Your task to perform on an android device: turn off location history Image 0: 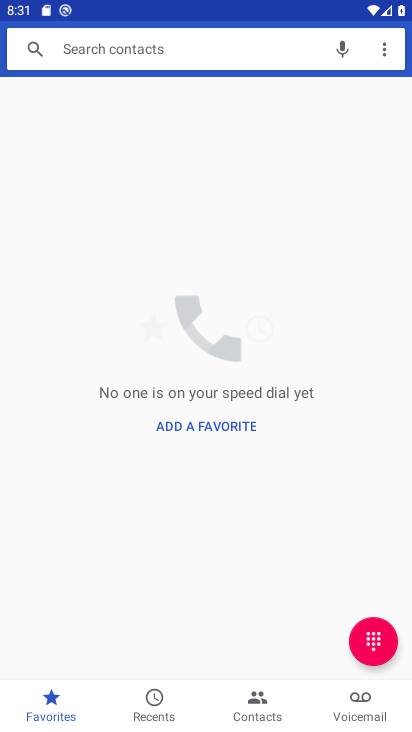
Step 0: press home button
Your task to perform on an android device: turn off location history Image 1: 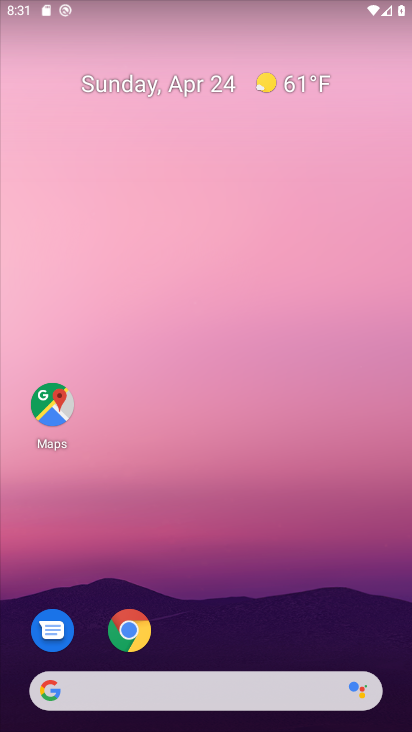
Step 1: drag from (372, 623) to (352, 67)
Your task to perform on an android device: turn off location history Image 2: 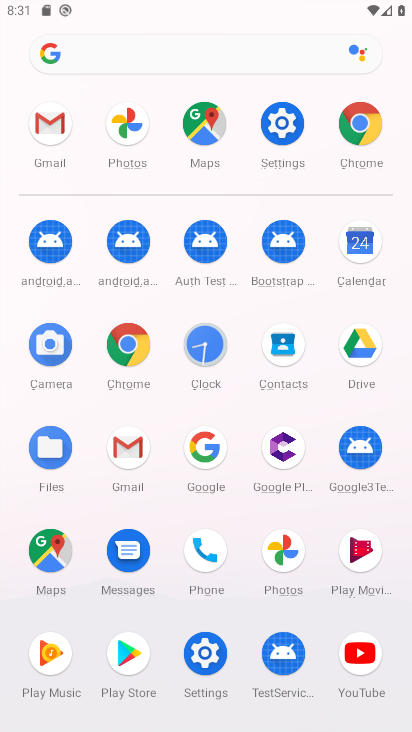
Step 2: click (275, 128)
Your task to perform on an android device: turn off location history Image 3: 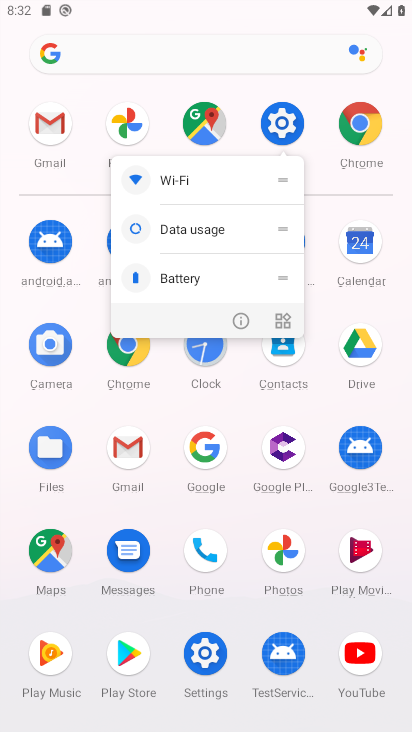
Step 3: click (267, 96)
Your task to perform on an android device: turn off location history Image 4: 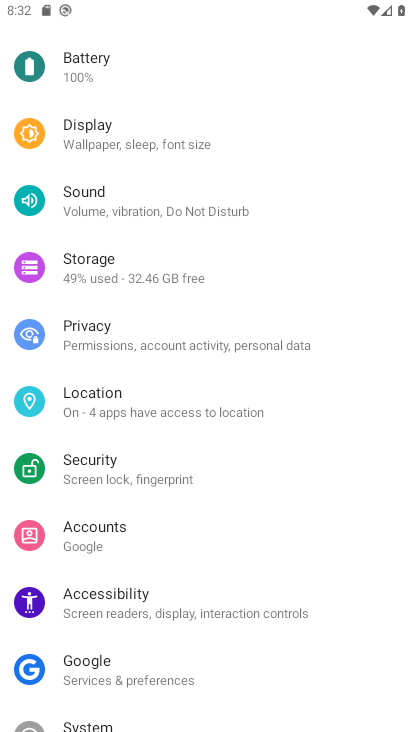
Step 4: drag from (360, 576) to (362, 239)
Your task to perform on an android device: turn off location history Image 5: 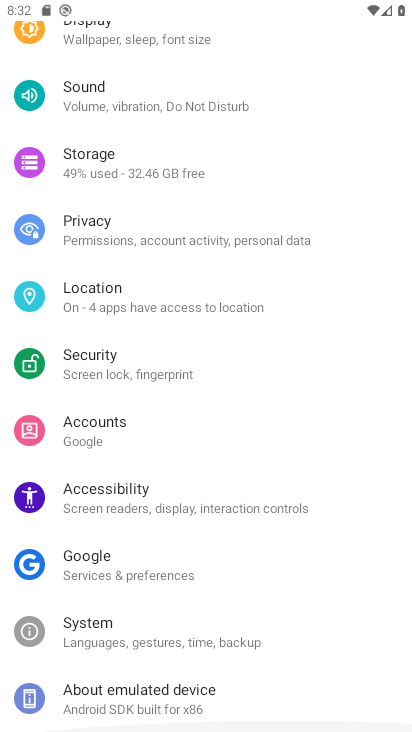
Step 5: drag from (358, 221) to (333, 453)
Your task to perform on an android device: turn off location history Image 6: 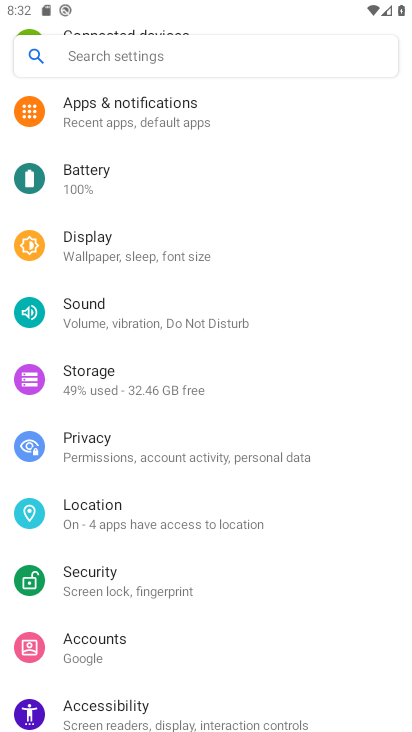
Step 6: drag from (354, 236) to (323, 469)
Your task to perform on an android device: turn off location history Image 7: 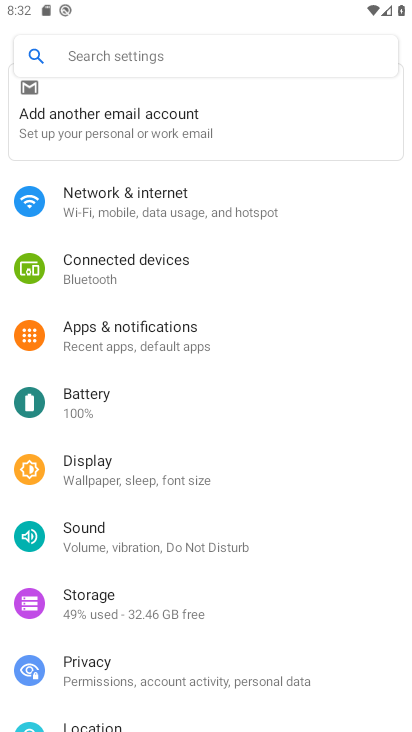
Step 7: drag from (327, 212) to (352, 429)
Your task to perform on an android device: turn off location history Image 8: 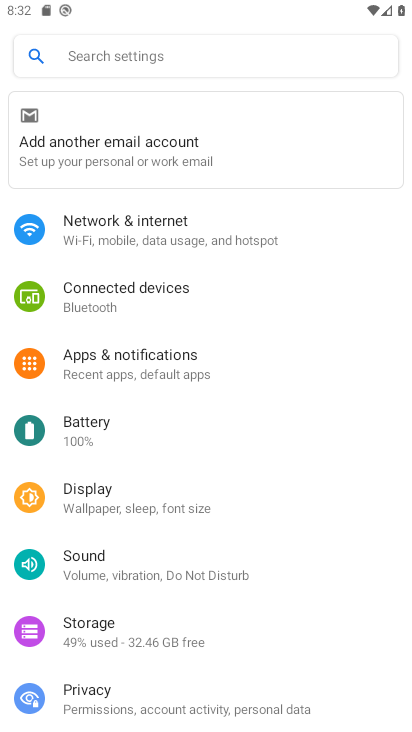
Step 8: drag from (350, 563) to (370, 341)
Your task to perform on an android device: turn off location history Image 9: 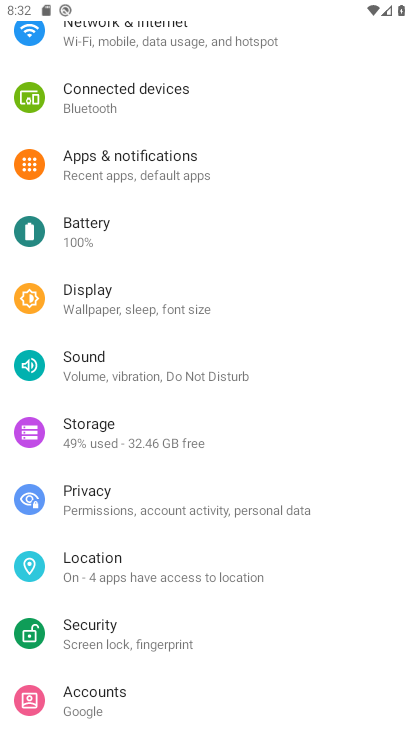
Step 9: drag from (355, 624) to (353, 152)
Your task to perform on an android device: turn off location history Image 10: 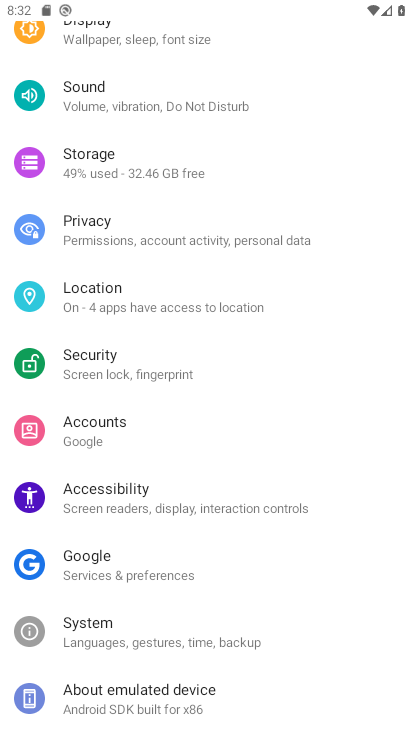
Step 10: click (235, 294)
Your task to perform on an android device: turn off location history Image 11: 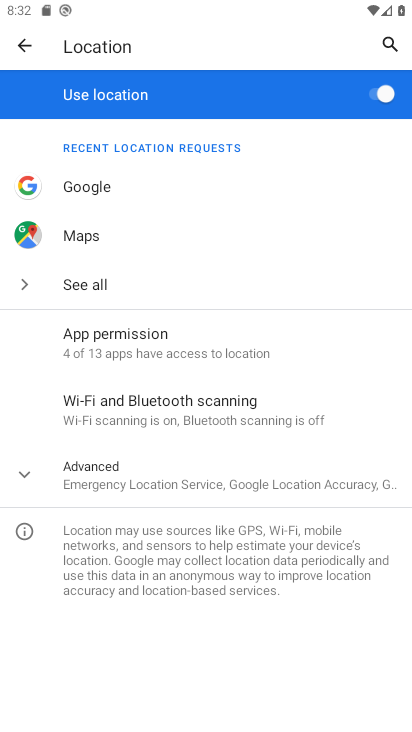
Step 11: click (327, 473)
Your task to perform on an android device: turn off location history Image 12: 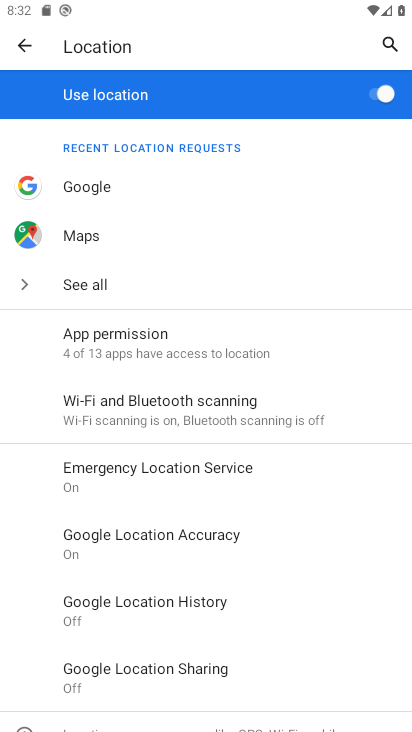
Step 12: drag from (352, 616) to (358, 365)
Your task to perform on an android device: turn off location history Image 13: 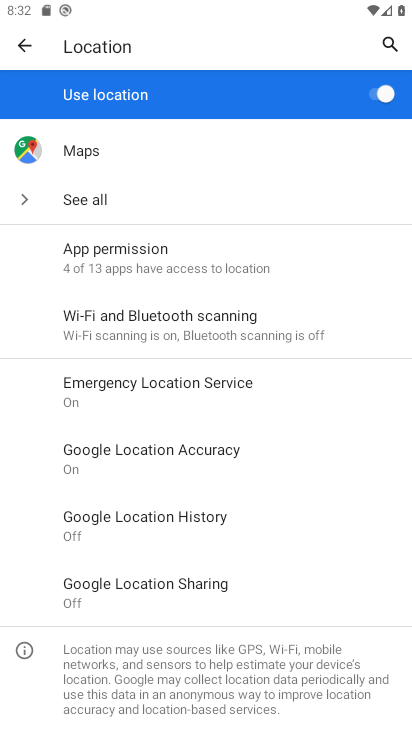
Step 13: click (195, 527)
Your task to perform on an android device: turn off location history Image 14: 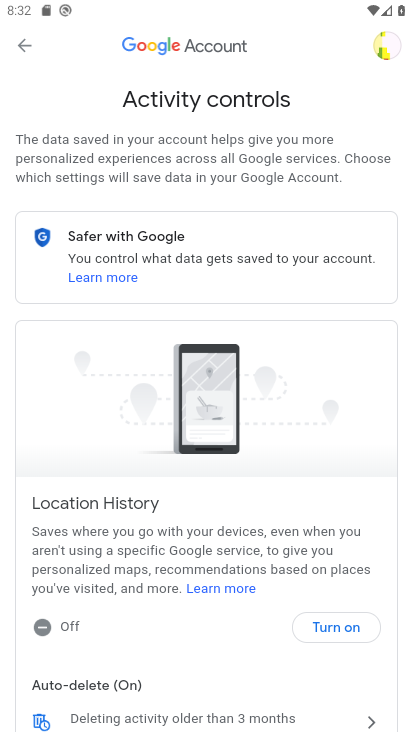
Step 14: task complete